Your task to perform on an android device: Open Google Image 0: 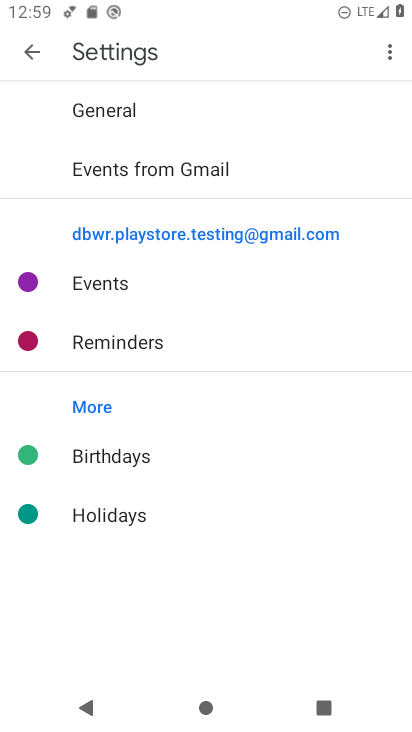
Step 0: press home button
Your task to perform on an android device: Open Google Image 1: 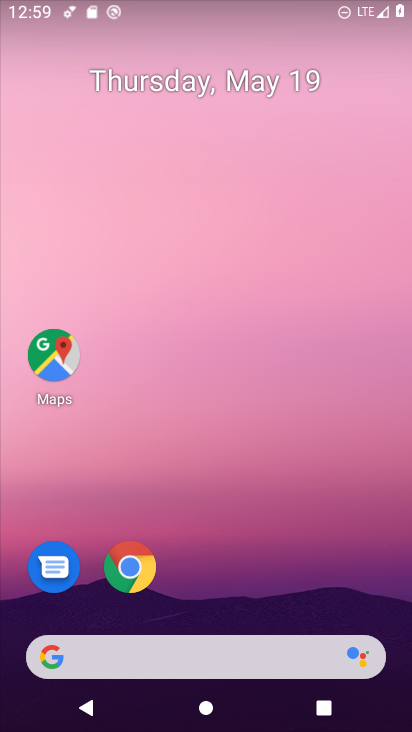
Step 1: click (275, 650)
Your task to perform on an android device: Open Google Image 2: 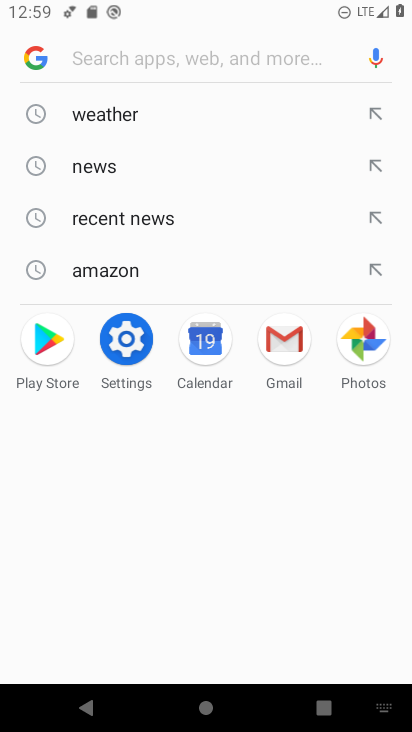
Step 2: click (31, 53)
Your task to perform on an android device: Open Google Image 3: 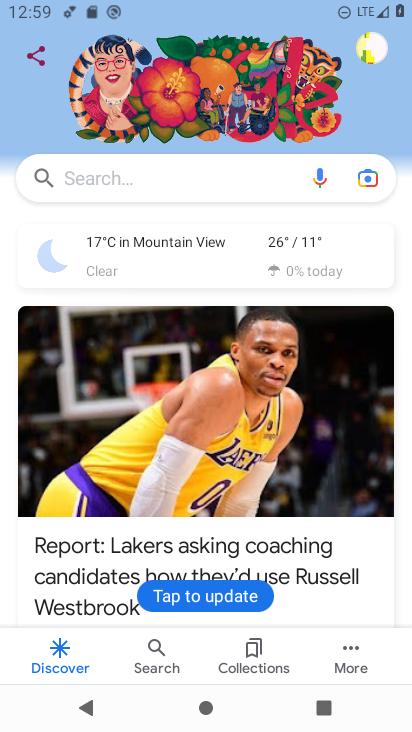
Step 3: task complete